Your task to perform on an android device: Go to accessibility settings Image 0: 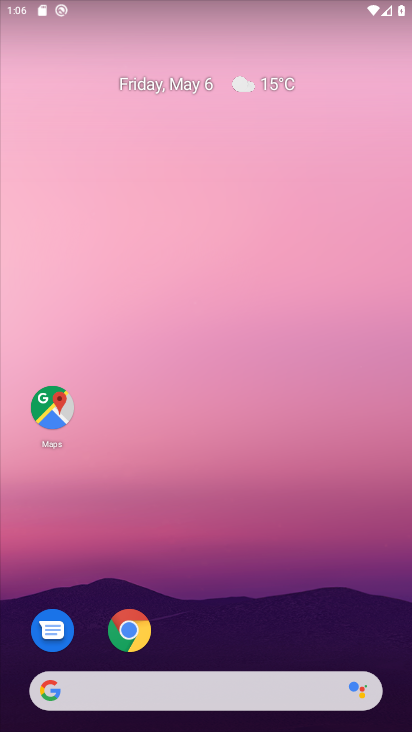
Step 0: drag from (216, 610) to (238, 132)
Your task to perform on an android device: Go to accessibility settings Image 1: 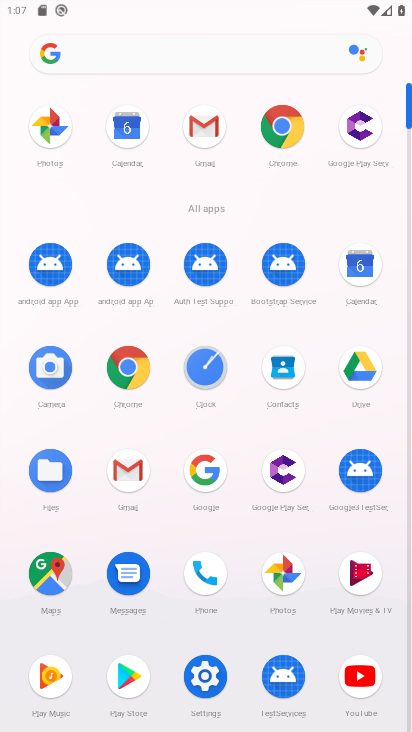
Step 1: click (210, 675)
Your task to perform on an android device: Go to accessibility settings Image 2: 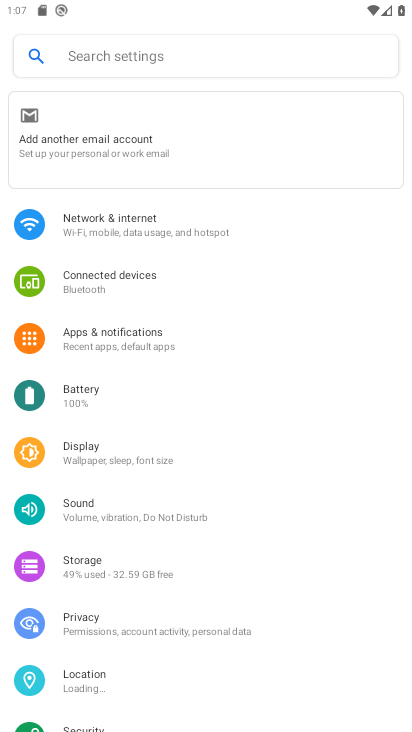
Step 2: drag from (144, 610) to (198, 293)
Your task to perform on an android device: Go to accessibility settings Image 3: 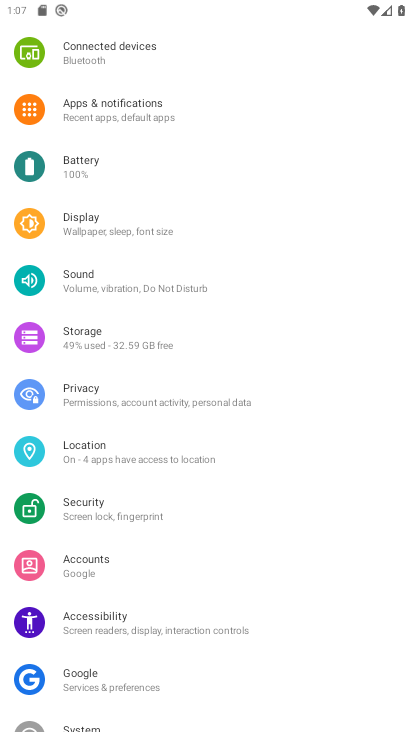
Step 3: click (127, 627)
Your task to perform on an android device: Go to accessibility settings Image 4: 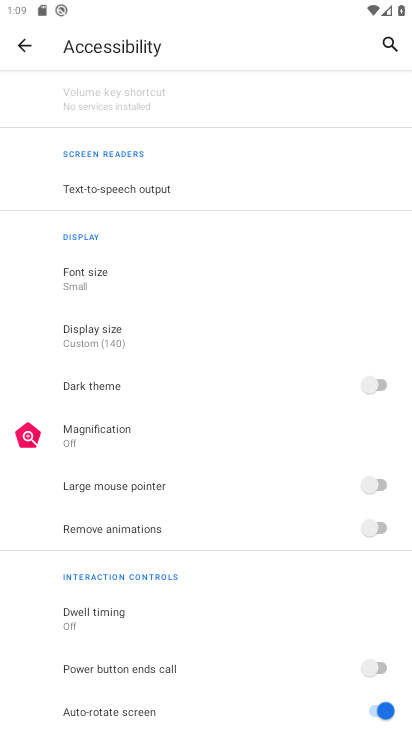
Step 4: task complete